Your task to perform on an android device: turn on location history Image 0: 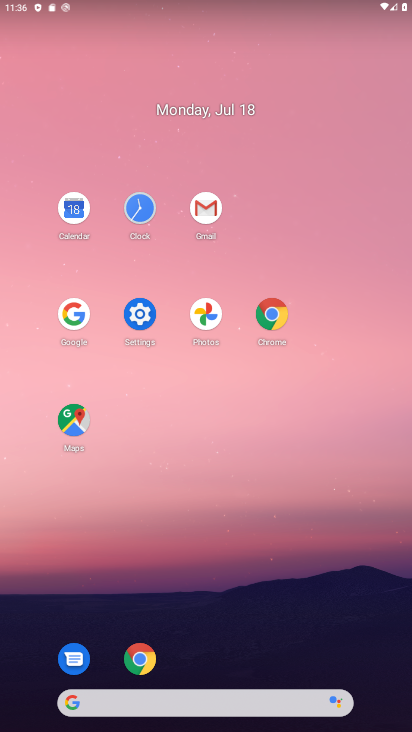
Step 0: click (144, 314)
Your task to perform on an android device: turn on location history Image 1: 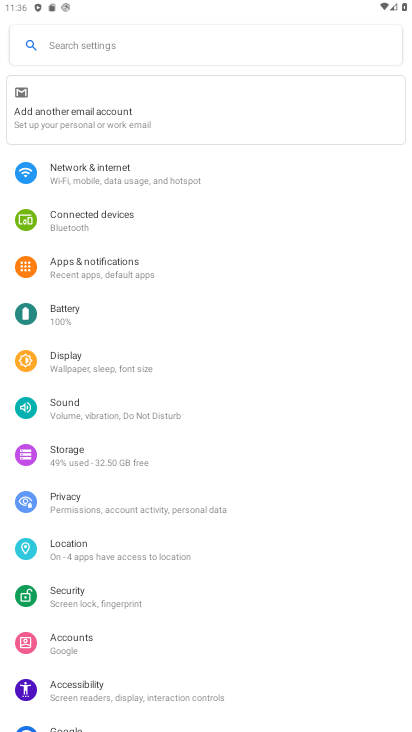
Step 1: click (123, 545)
Your task to perform on an android device: turn on location history Image 2: 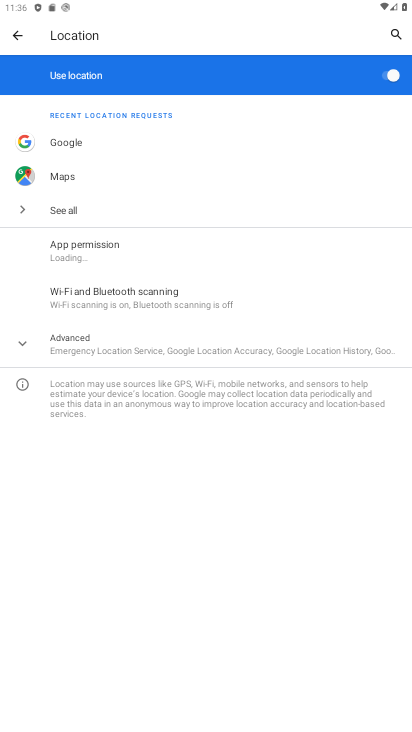
Step 2: click (75, 348)
Your task to perform on an android device: turn on location history Image 3: 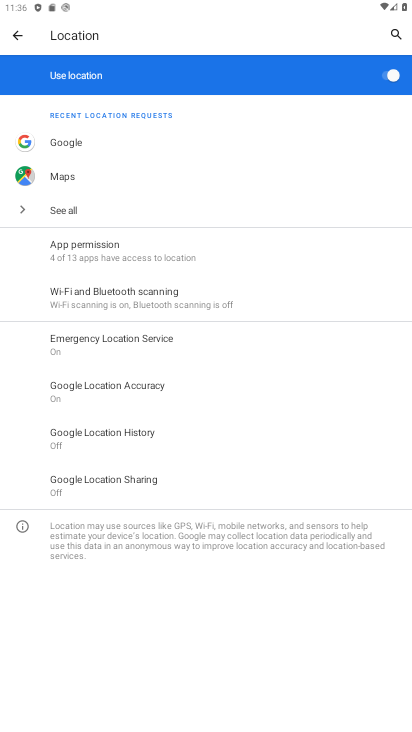
Step 3: click (106, 431)
Your task to perform on an android device: turn on location history Image 4: 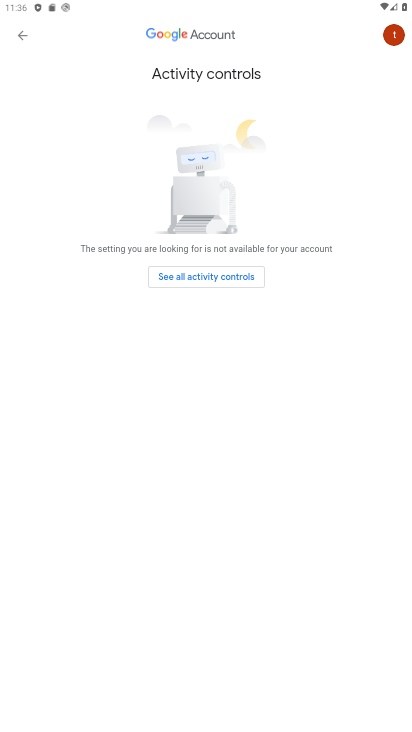
Step 4: task complete